Your task to perform on an android device: What is the recent news? Image 0: 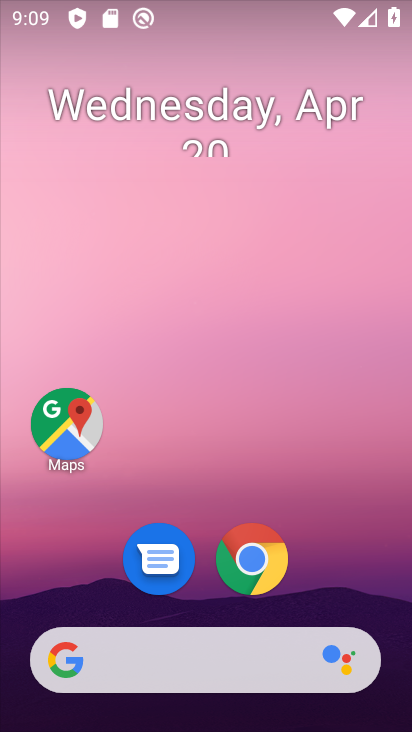
Step 0: drag from (206, 596) to (207, 221)
Your task to perform on an android device: What is the recent news? Image 1: 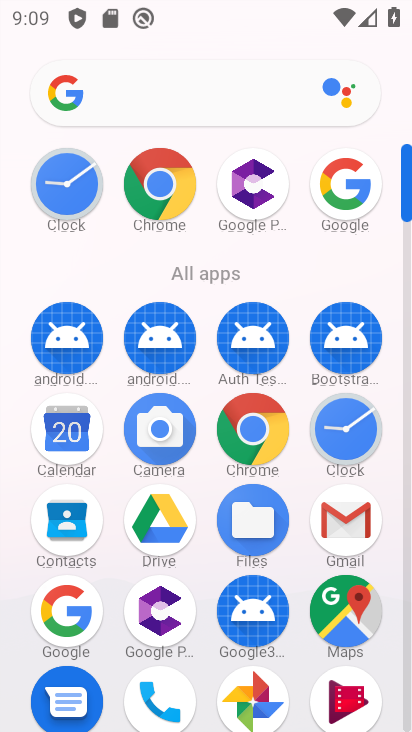
Step 1: click (333, 200)
Your task to perform on an android device: What is the recent news? Image 2: 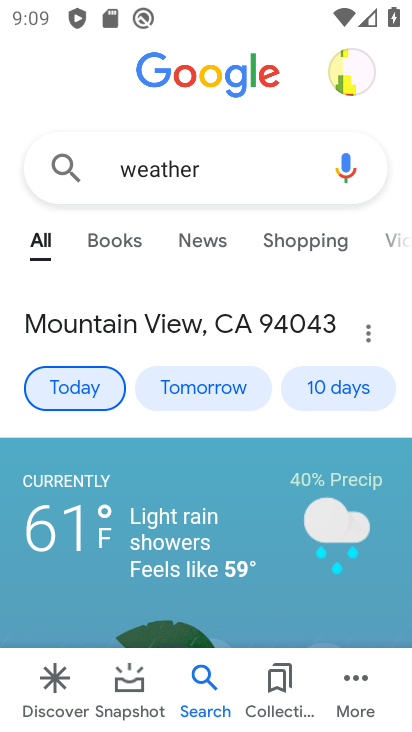
Step 2: click (196, 233)
Your task to perform on an android device: What is the recent news? Image 3: 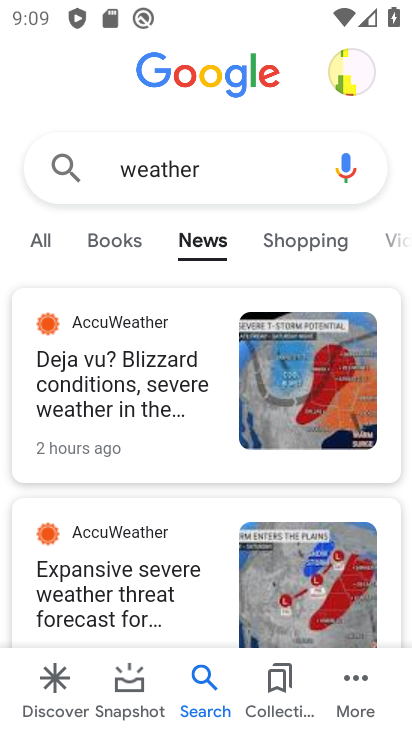
Step 3: task complete